Your task to perform on an android device: What's a good restaurant in Miami? Image 0: 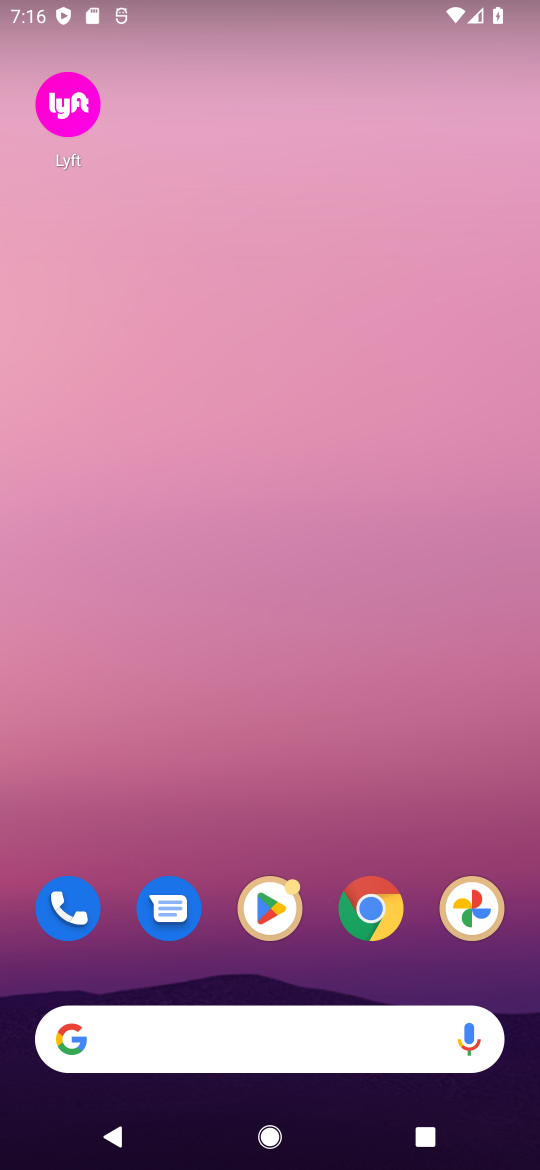
Step 0: press home button
Your task to perform on an android device: What's a good restaurant in Miami? Image 1: 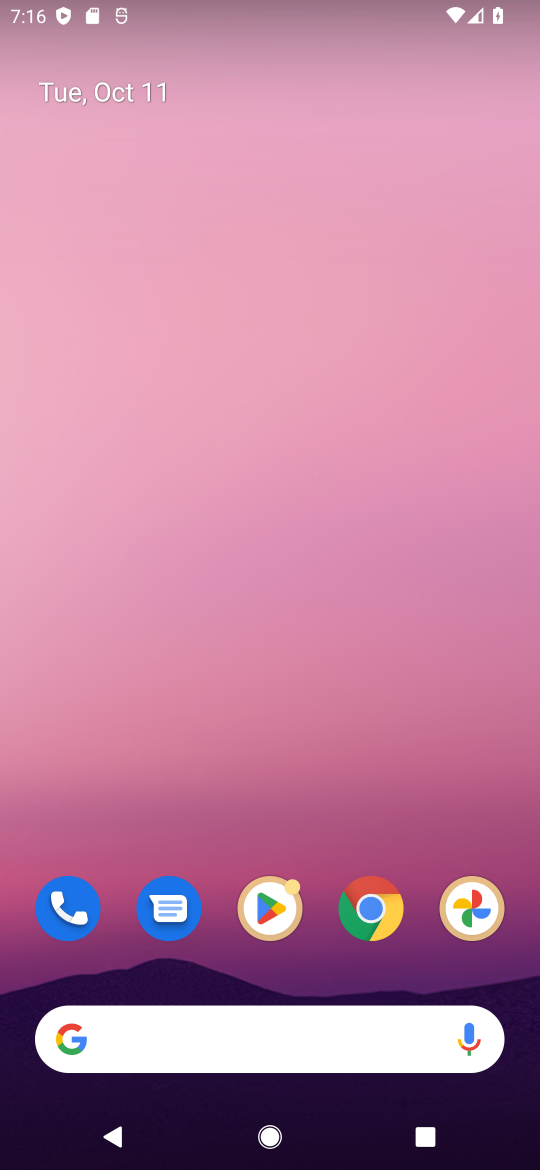
Step 1: click (290, 1045)
Your task to perform on an android device: What's a good restaurant in Miami? Image 2: 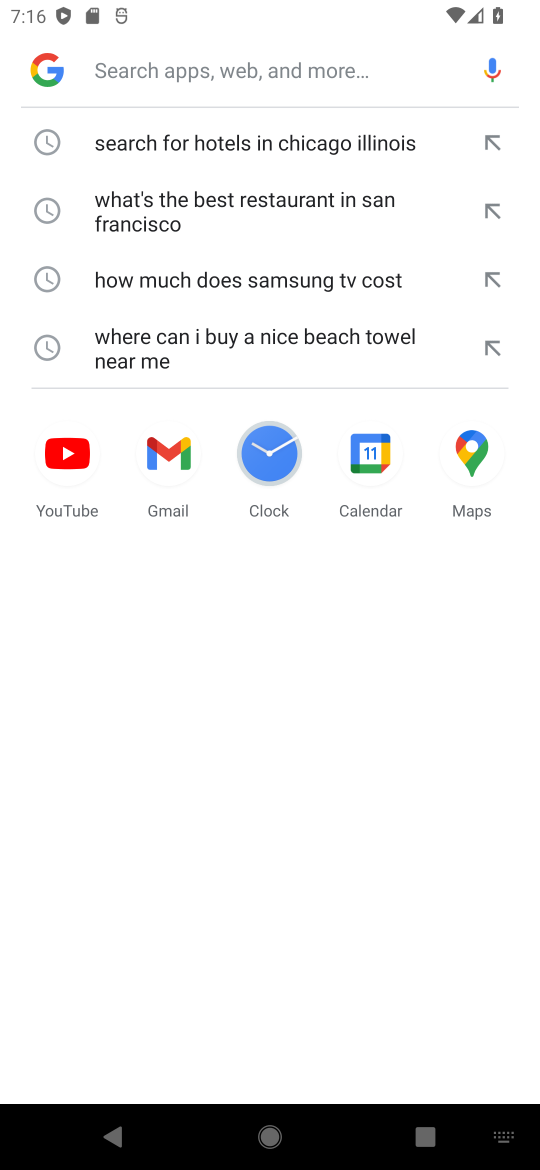
Step 2: type "What's a good restaurant in Miami?"
Your task to perform on an android device: What's a good restaurant in Miami? Image 3: 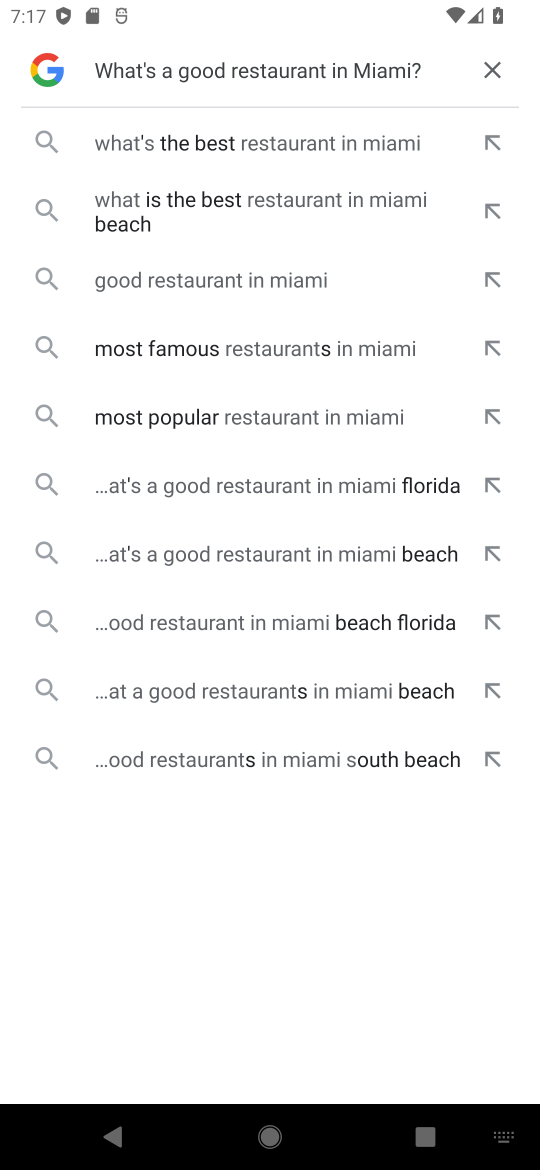
Step 3: click (203, 136)
Your task to perform on an android device: What's a good restaurant in Miami? Image 4: 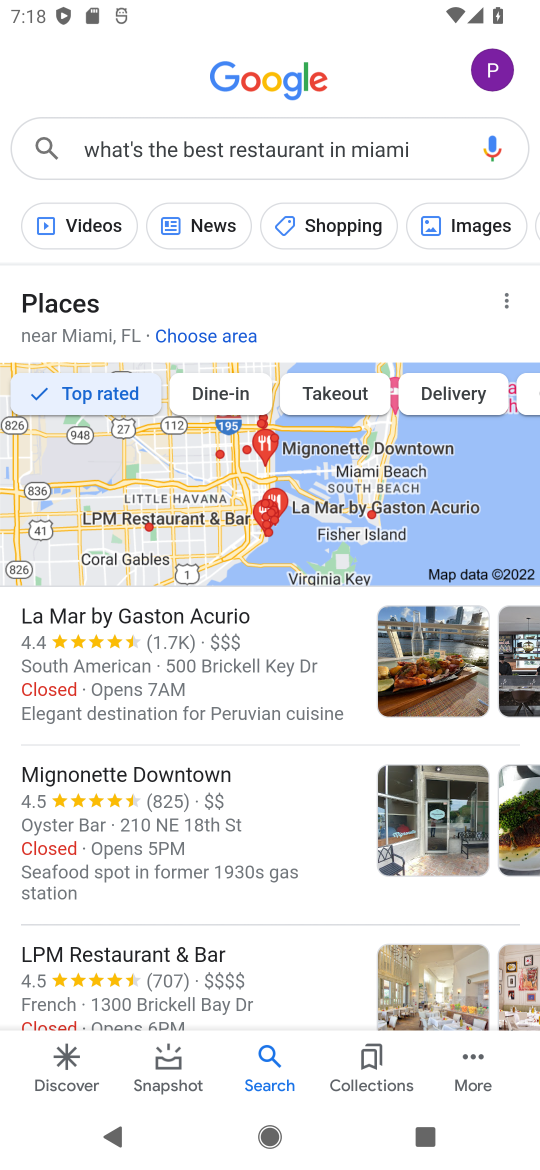
Step 4: task complete